Your task to perform on an android device: turn off smart reply in the gmail app Image 0: 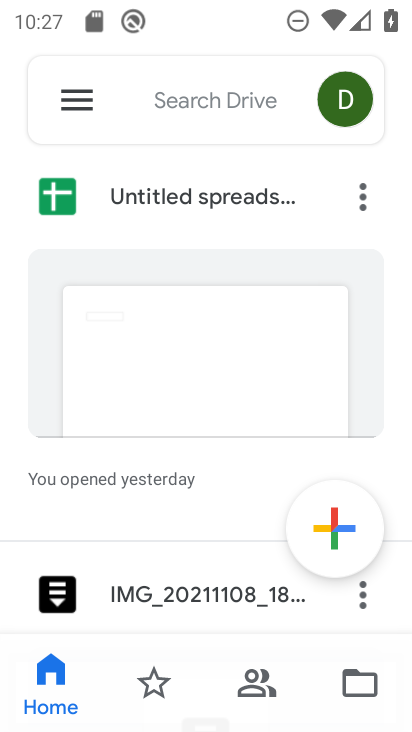
Step 0: press home button
Your task to perform on an android device: turn off smart reply in the gmail app Image 1: 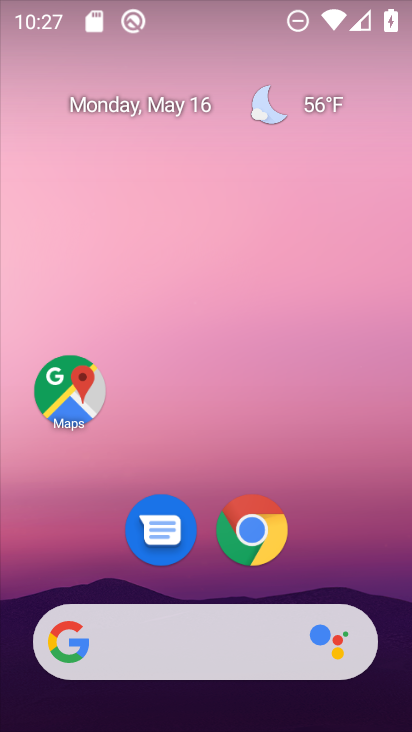
Step 1: drag from (206, 531) to (241, 327)
Your task to perform on an android device: turn off smart reply in the gmail app Image 2: 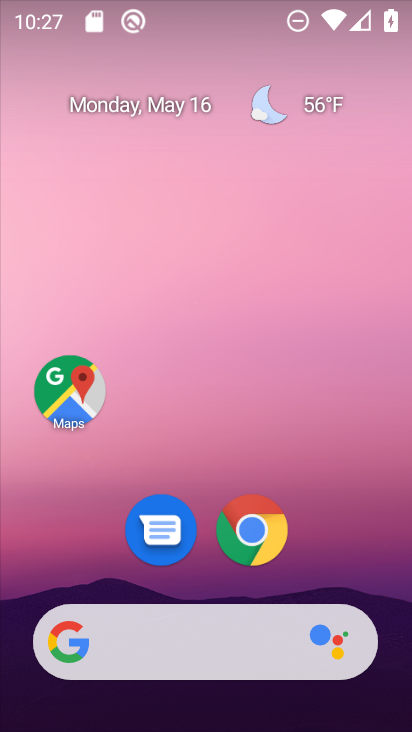
Step 2: drag from (329, 526) to (345, 186)
Your task to perform on an android device: turn off smart reply in the gmail app Image 3: 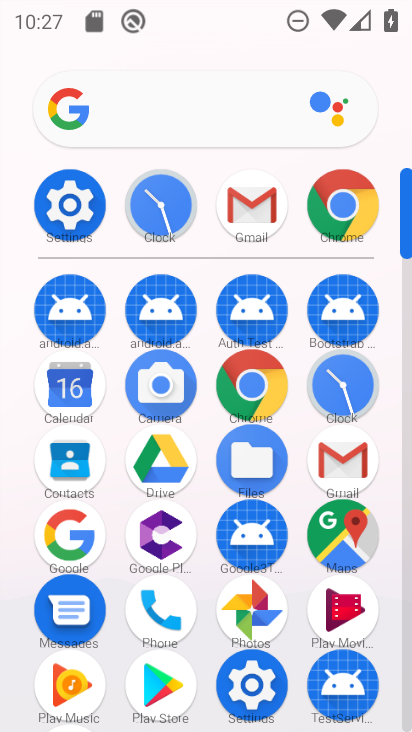
Step 3: click (344, 468)
Your task to perform on an android device: turn off smart reply in the gmail app Image 4: 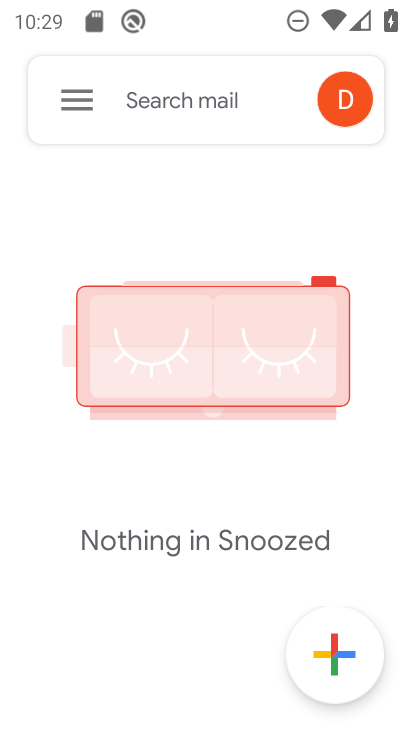
Step 4: click (83, 97)
Your task to perform on an android device: turn off smart reply in the gmail app Image 5: 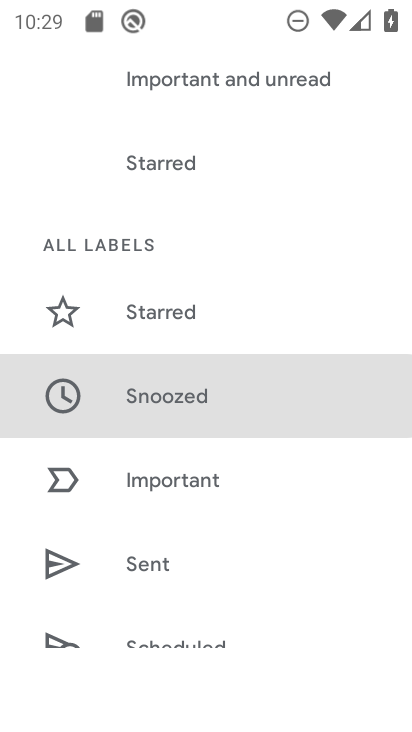
Step 5: drag from (264, 560) to (266, 322)
Your task to perform on an android device: turn off smart reply in the gmail app Image 6: 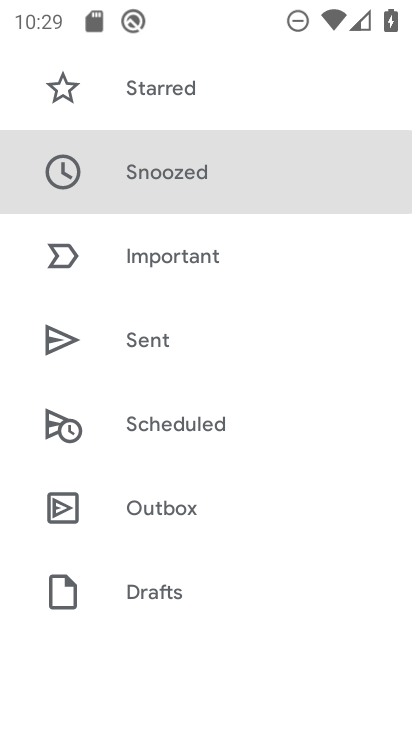
Step 6: drag from (264, 571) to (282, 384)
Your task to perform on an android device: turn off smart reply in the gmail app Image 7: 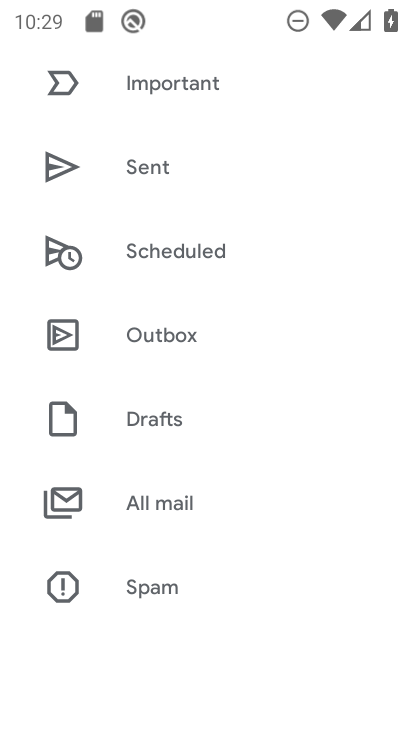
Step 7: drag from (307, 573) to (299, 483)
Your task to perform on an android device: turn off smart reply in the gmail app Image 8: 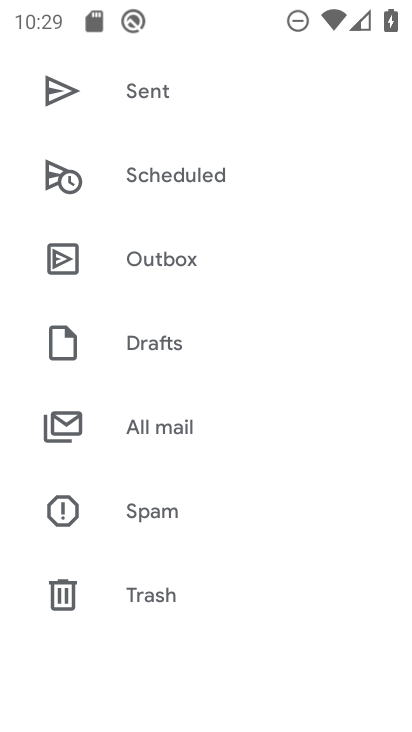
Step 8: drag from (261, 595) to (282, 386)
Your task to perform on an android device: turn off smart reply in the gmail app Image 9: 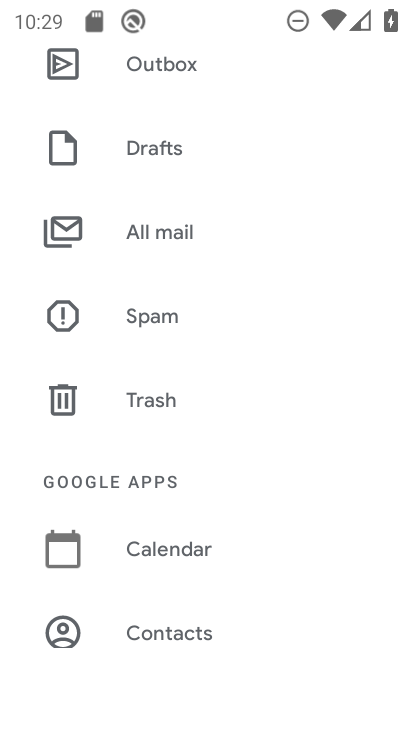
Step 9: drag from (286, 591) to (310, 473)
Your task to perform on an android device: turn off smart reply in the gmail app Image 10: 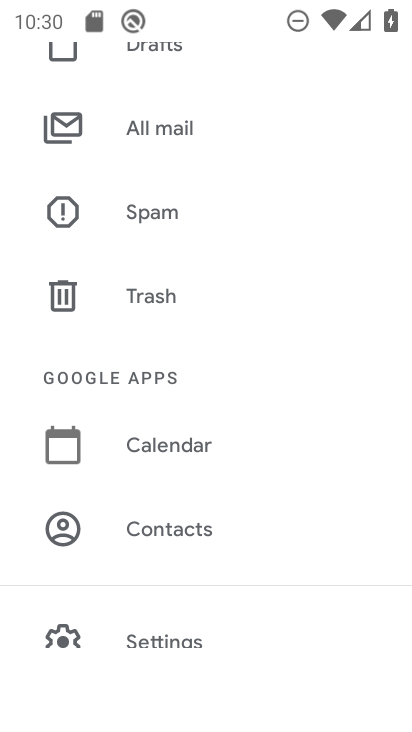
Step 10: drag from (298, 593) to (296, 495)
Your task to perform on an android device: turn off smart reply in the gmail app Image 11: 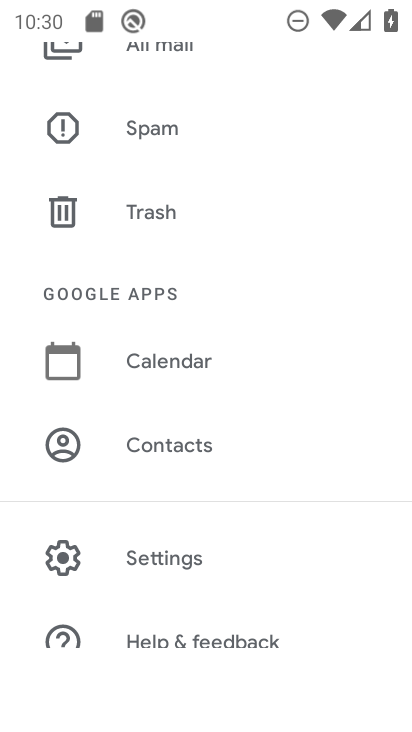
Step 11: click (201, 578)
Your task to perform on an android device: turn off smart reply in the gmail app Image 12: 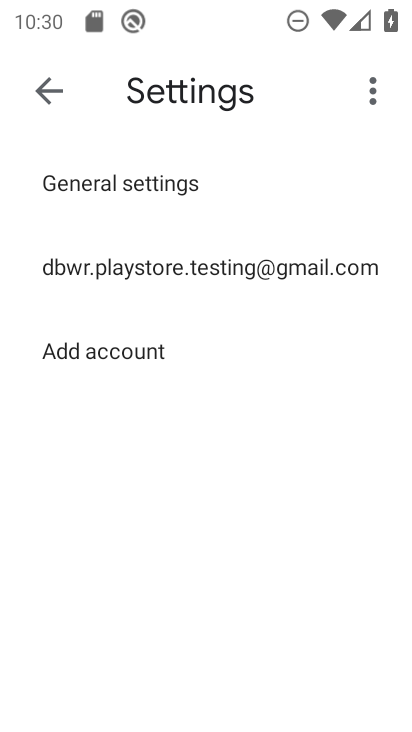
Step 12: click (231, 281)
Your task to perform on an android device: turn off smart reply in the gmail app Image 13: 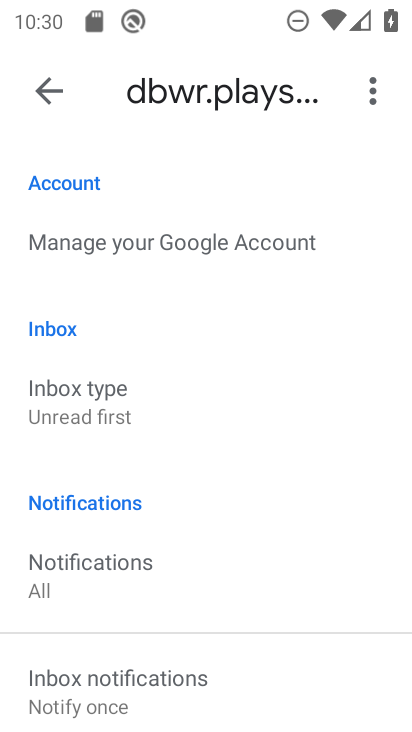
Step 13: drag from (290, 533) to (284, 398)
Your task to perform on an android device: turn off smart reply in the gmail app Image 14: 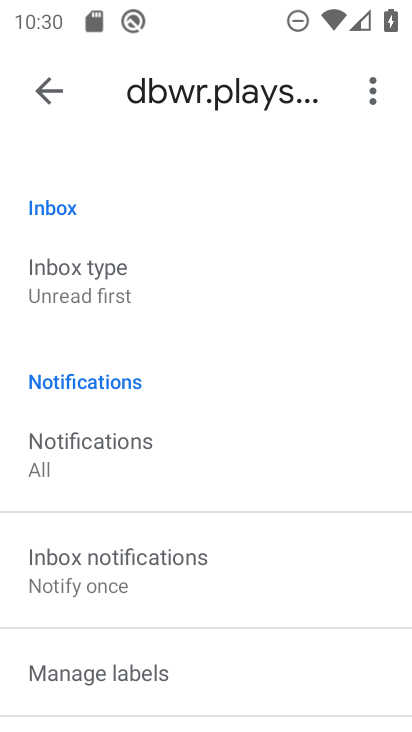
Step 14: drag from (300, 625) to (301, 510)
Your task to perform on an android device: turn off smart reply in the gmail app Image 15: 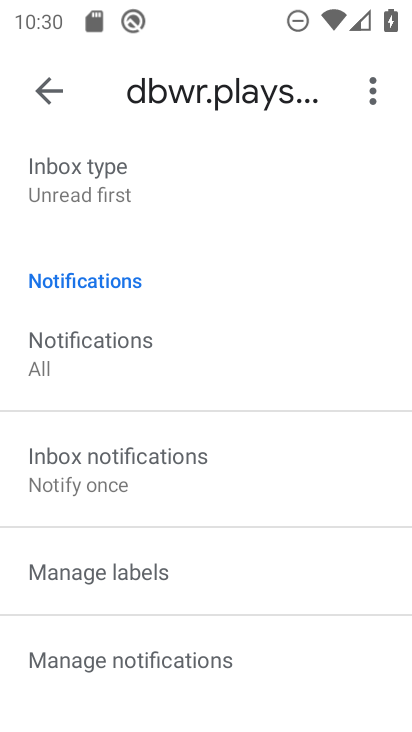
Step 15: drag from (324, 586) to (323, 448)
Your task to perform on an android device: turn off smart reply in the gmail app Image 16: 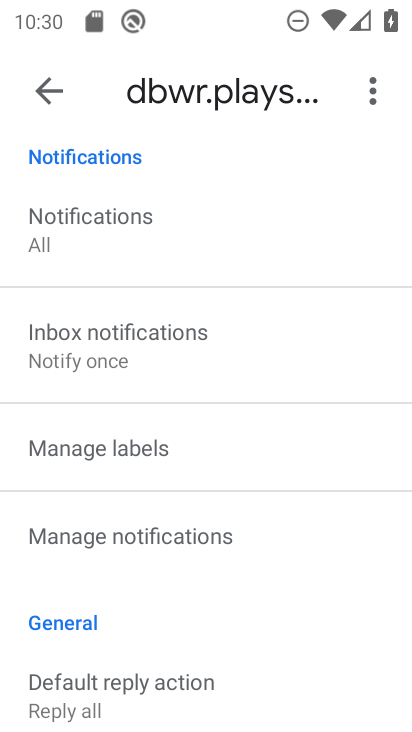
Step 16: click (266, 536)
Your task to perform on an android device: turn off smart reply in the gmail app Image 17: 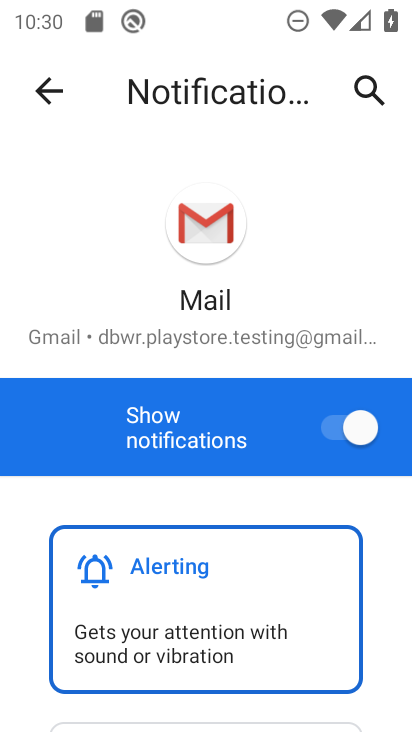
Step 17: click (325, 450)
Your task to perform on an android device: turn off smart reply in the gmail app Image 18: 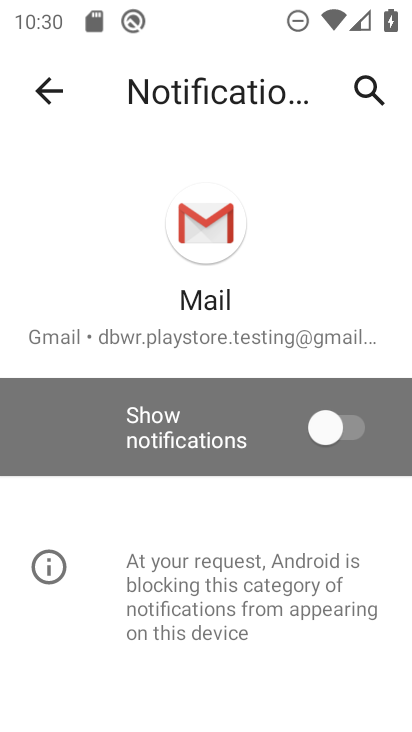
Step 18: task complete